Your task to perform on an android device: find which apps use the phone's location Image 0: 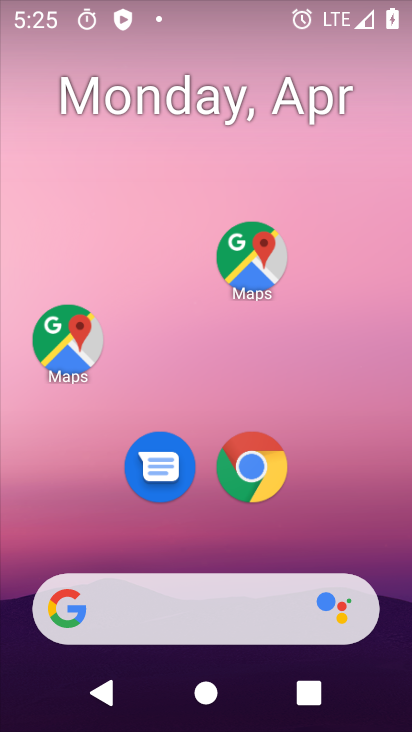
Step 0: drag from (385, 589) to (340, 7)
Your task to perform on an android device: find which apps use the phone's location Image 1: 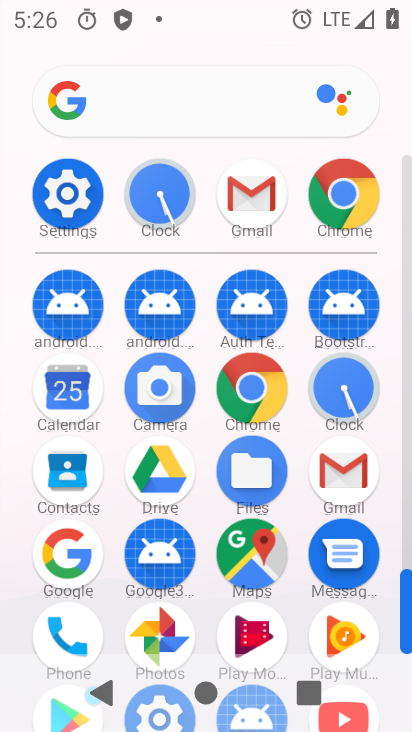
Step 1: drag from (292, 639) to (276, 178)
Your task to perform on an android device: find which apps use the phone's location Image 2: 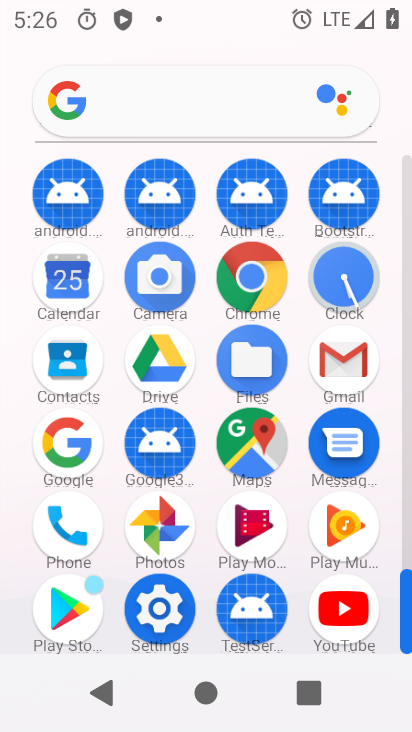
Step 2: click (165, 594)
Your task to perform on an android device: find which apps use the phone's location Image 3: 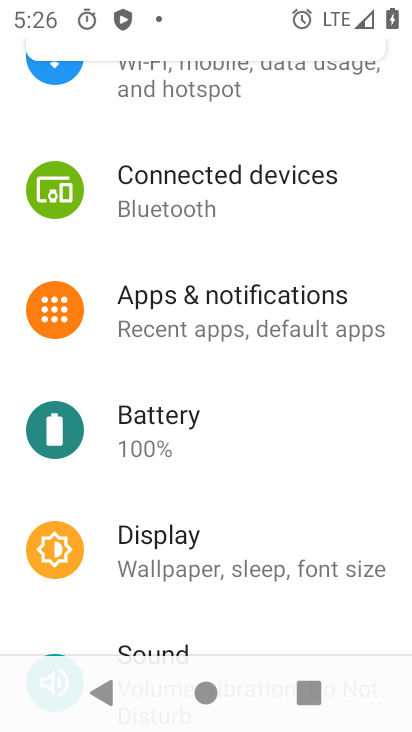
Step 3: drag from (222, 602) to (189, 157)
Your task to perform on an android device: find which apps use the phone's location Image 4: 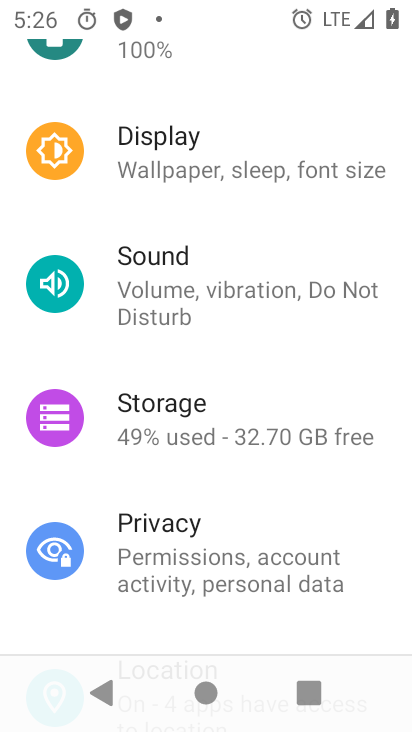
Step 4: drag from (262, 627) to (262, 181)
Your task to perform on an android device: find which apps use the phone's location Image 5: 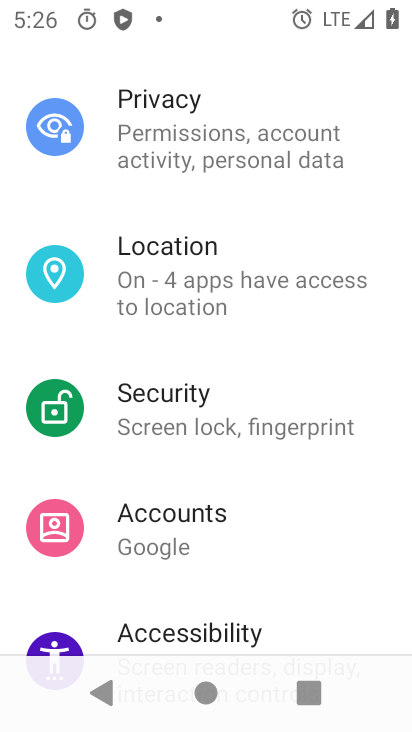
Step 5: click (275, 288)
Your task to perform on an android device: find which apps use the phone's location Image 6: 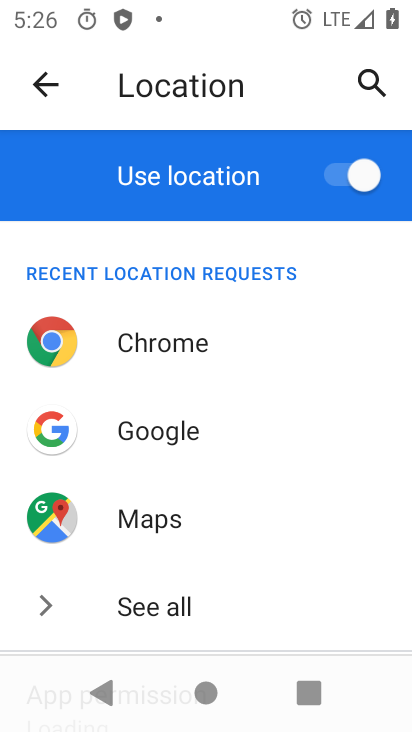
Step 6: drag from (256, 602) to (288, 217)
Your task to perform on an android device: find which apps use the phone's location Image 7: 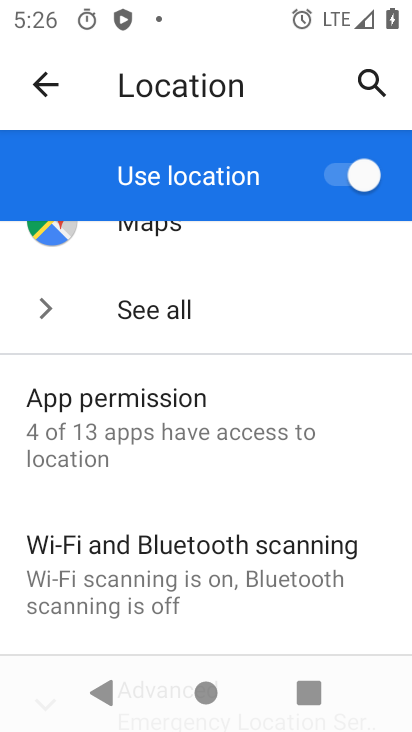
Step 7: click (245, 420)
Your task to perform on an android device: find which apps use the phone's location Image 8: 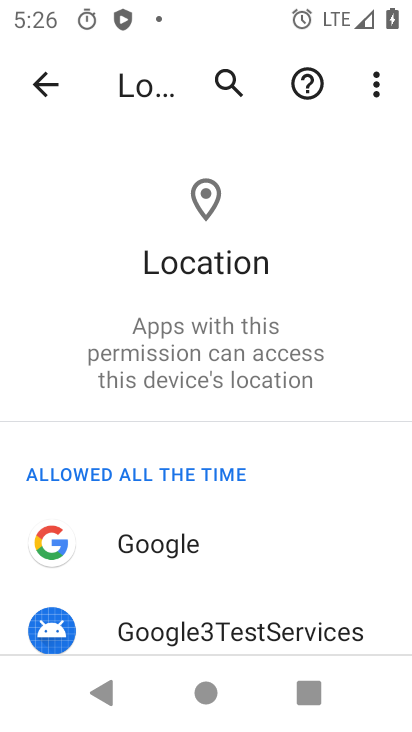
Step 8: task complete